Your task to perform on an android device: Open calendar and show me the third week of next month Image 0: 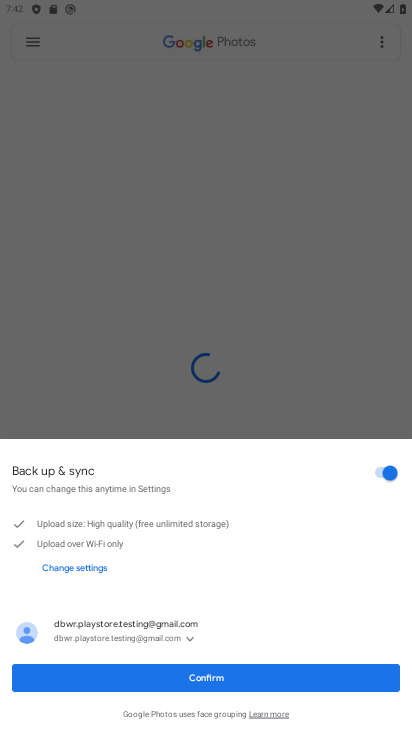
Step 0: press home button
Your task to perform on an android device: Open calendar and show me the third week of next month Image 1: 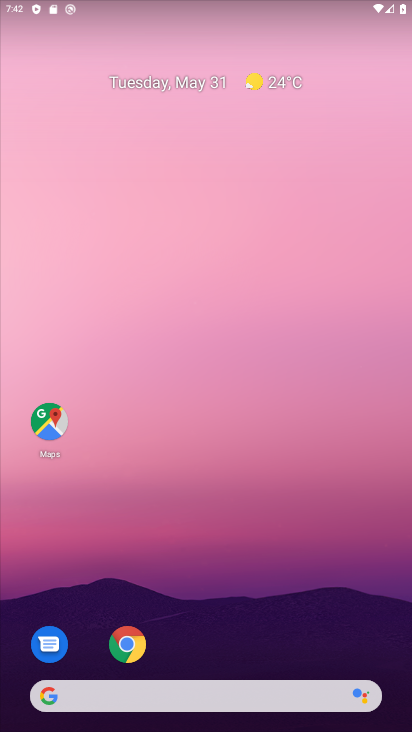
Step 1: drag from (262, 577) to (229, 101)
Your task to perform on an android device: Open calendar and show me the third week of next month Image 2: 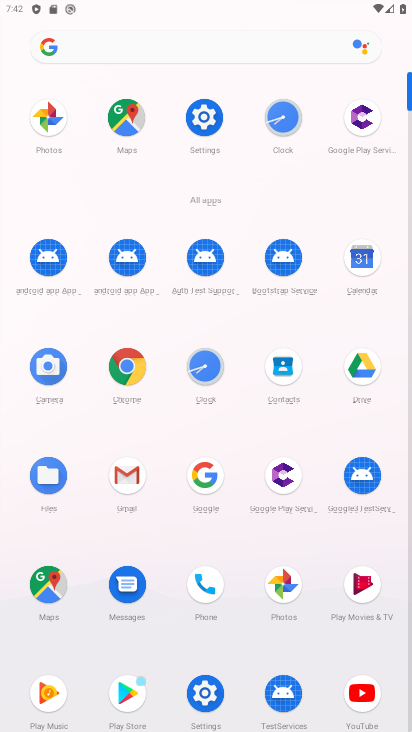
Step 2: click (357, 259)
Your task to perform on an android device: Open calendar and show me the third week of next month Image 3: 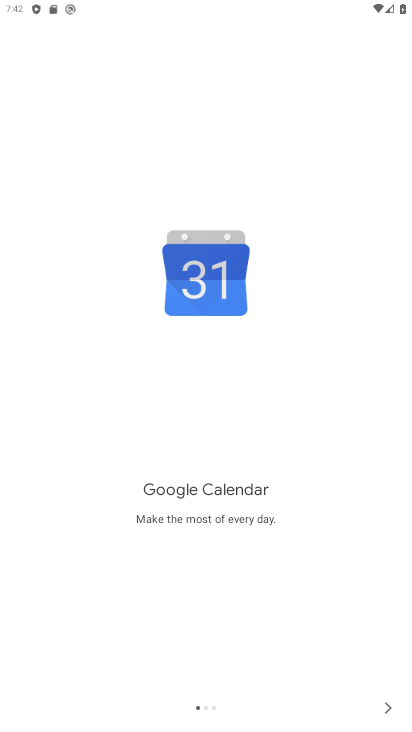
Step 3: click (387, 701)
Your task to perform on an android device: Open calendar and show me the third week of next month Image 4: 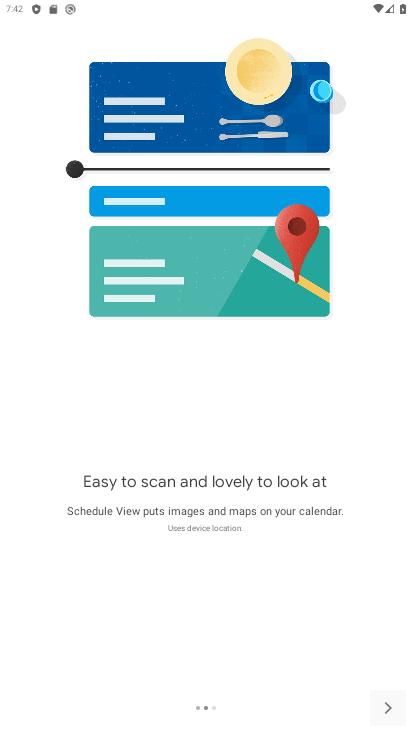
Step 4: click (387, 701)
Your task to perform on an android device: Open calendar and show me the third week of next month Image 5: 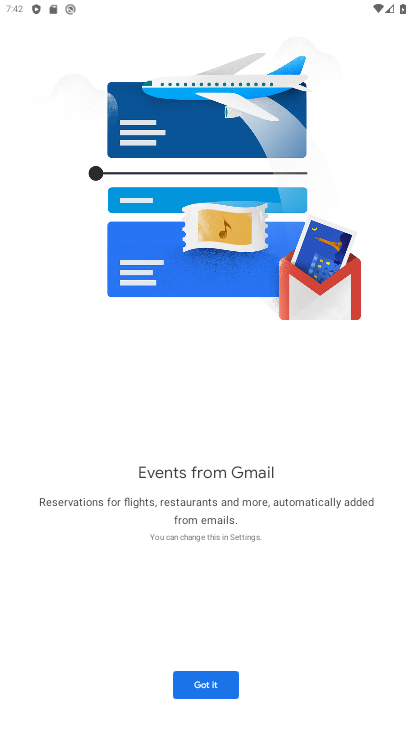
Step 5: click (387, 701)
Your task to perform on an android device: Open calendar and show me the third week of next month Image 6: 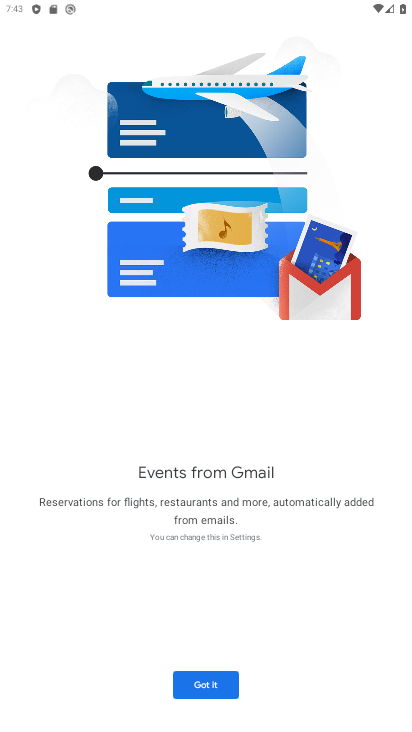
Step 6: click (383, 711)
Your task to perform on an android device: Open calendar and show me the third week of next month Image 7: 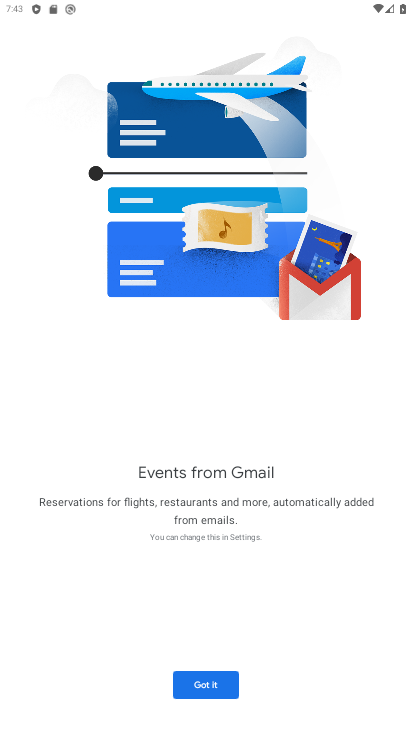
Step 7: click (215, 689)
Your task to perform on an android device: Open calendar and show me the third week of next month Image 8: 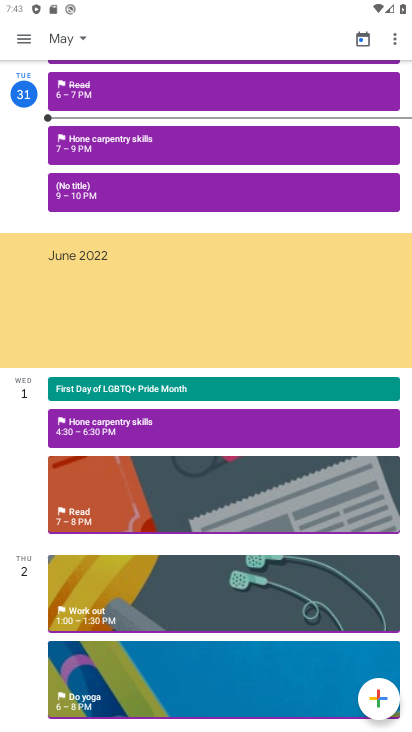
Step 8: click (69, 35)
Your task to perform on an android device: Open calendar and show me the third week of next month Image 9: 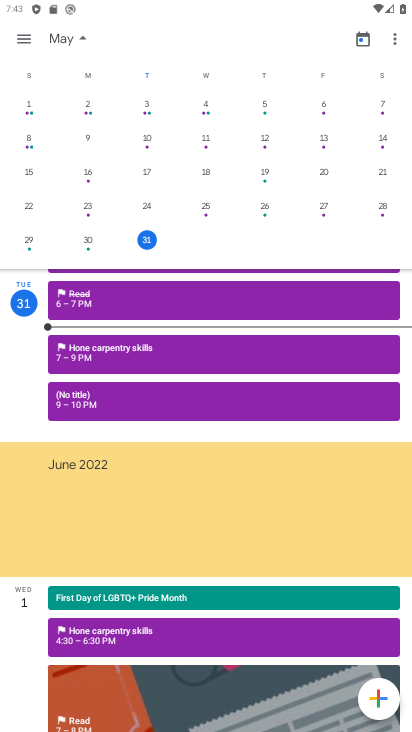
Step 9: drag from (394, 231) to (6, 215)
Your task to perform on an android device: Open calendar and show me the third week of next month Image 10: 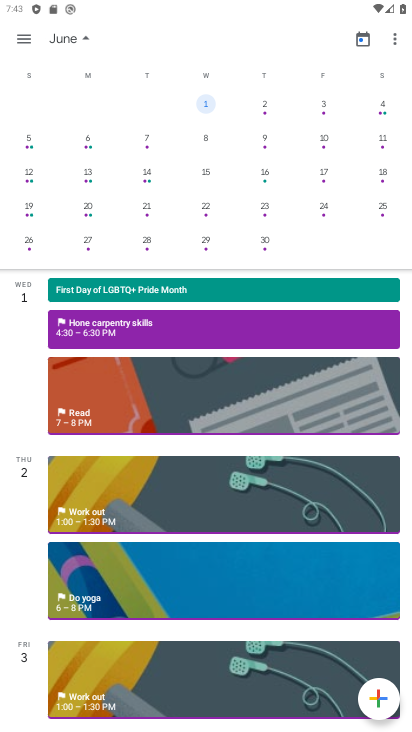
Step 10: click (217, 177)
Your task to perform on an android device: Open calendar and show me the third week of next month Image 11: 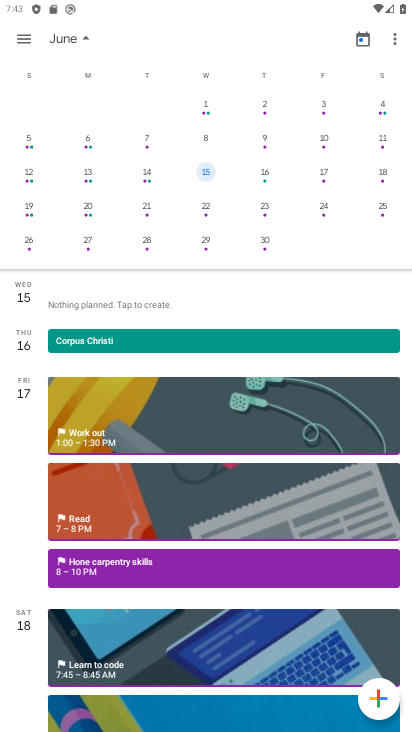
Step 11: click (135, 171)
Your task to perform on an android device: Open calendar and show me the third week of next month Image 12: 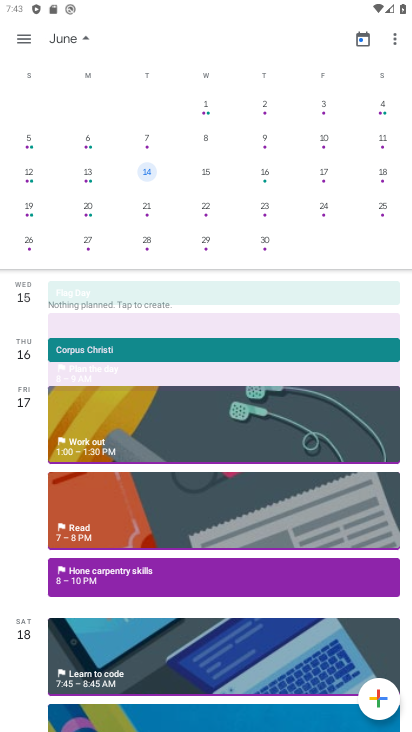
Step 12: click (75, 164)
Your task to perform on an android device: Open calendar and show me the third week of next month Image 13: 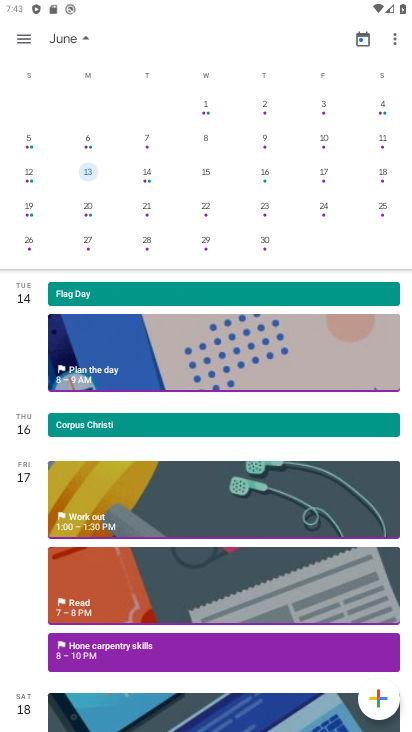
Step 13: click (14, 169)
Your task to perform on an android device: Open calendar and show me the third week of next month Image 14: 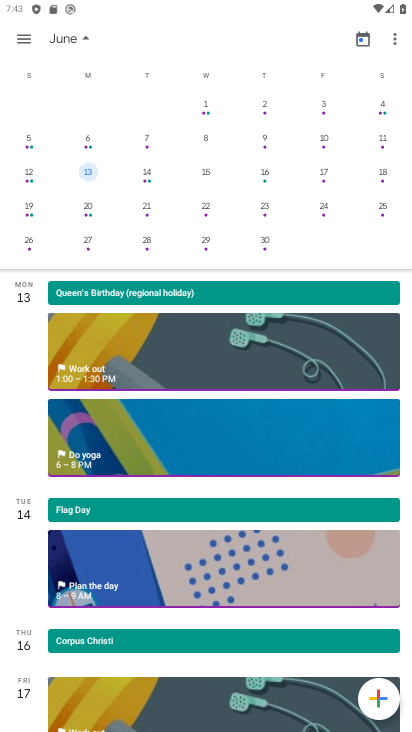
Step 14: click (273, 179)
Your task to perform on an android device: Open calendar and show me the third week of next month Image 15: 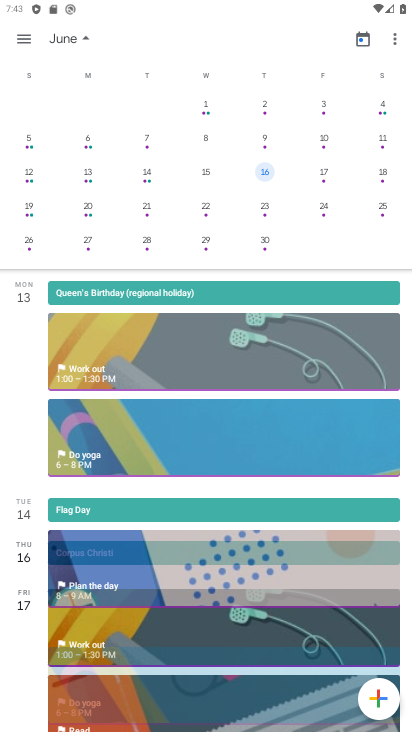
Step 15: click (326, 177)
Your task to perform on an android device: Open calendar and show me the third week of next month Image 16: 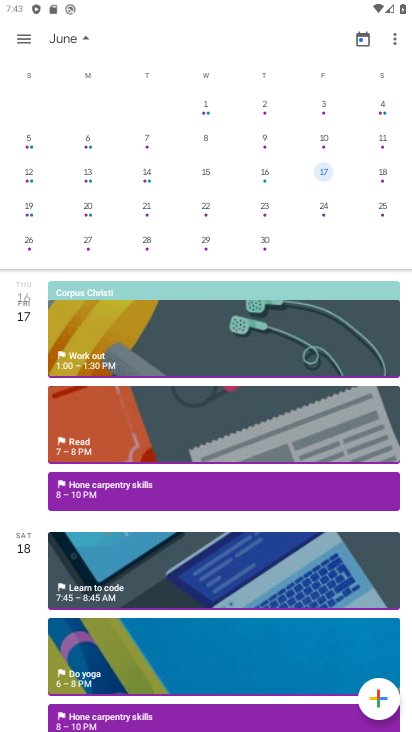
Step 16: click (384, 170)
Your task to perform on an android device: Open calendar and show me the third week of next month Image 17: 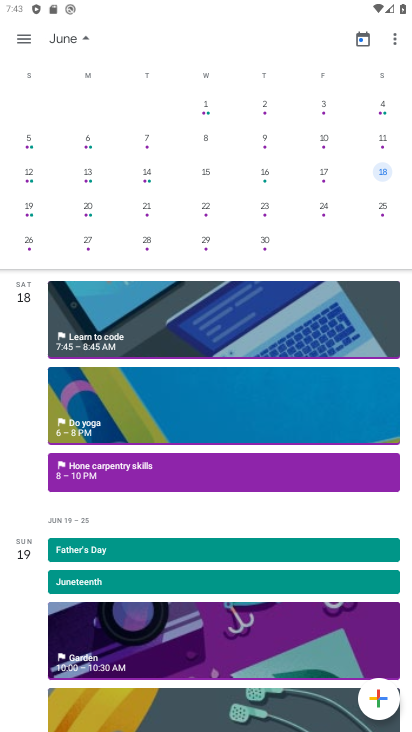
Step 17: task complete